Your task to perform on an android device: turn on location history Image 0: 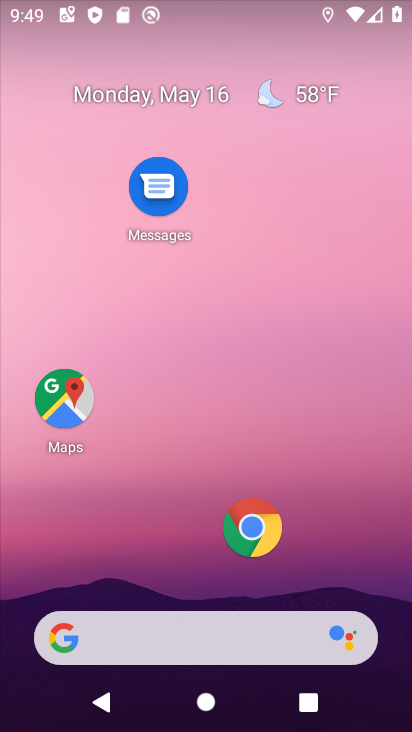
Step 0: drag from (185, 525) to (233, 141)
Your task to perform on an android device: turn on location history Image 1: 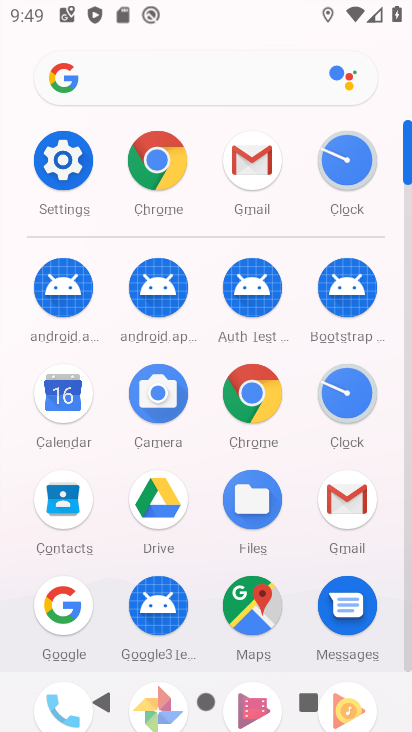
Step 1: click (62, 165)
Your task to perform on an android device: turn on location history Image 2: 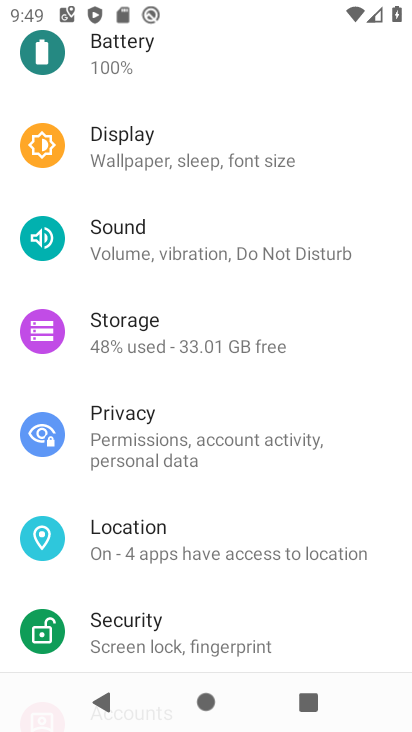
Step 2: click (162, 543)
Your task to perform on an android device: turn on location history Image 3: 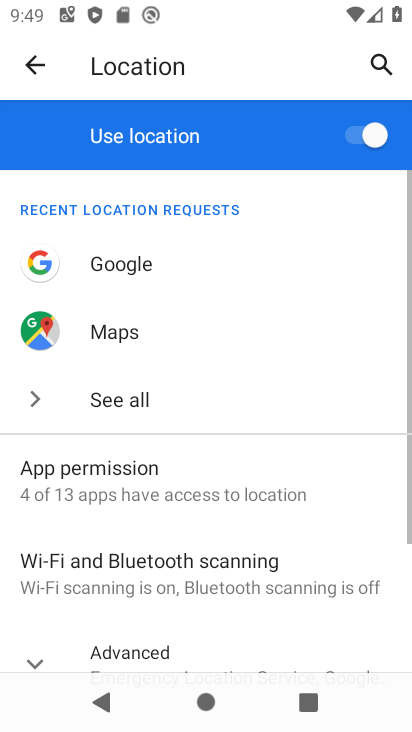
Step 3: drag from (134, 593) to (140, 263)
Your task to perform on an android device: turn on location history Image 4: 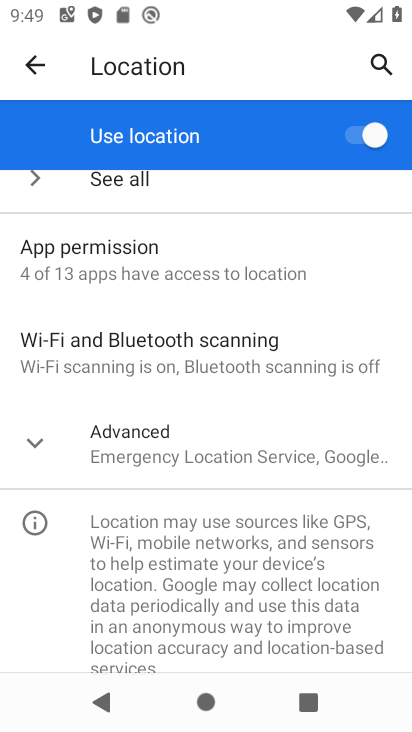
Step 4: click (160, 451)
Your task to perform on an android device: turn on location history Image 5: 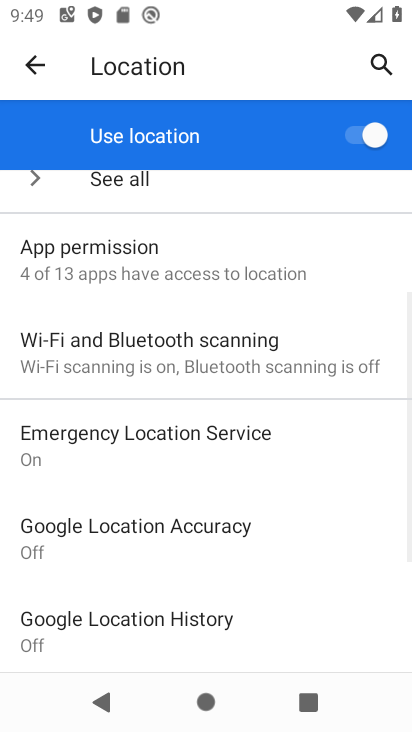
Step 5: click (123, 622)
Your task to perform on an android device: turn on location history Image 6: 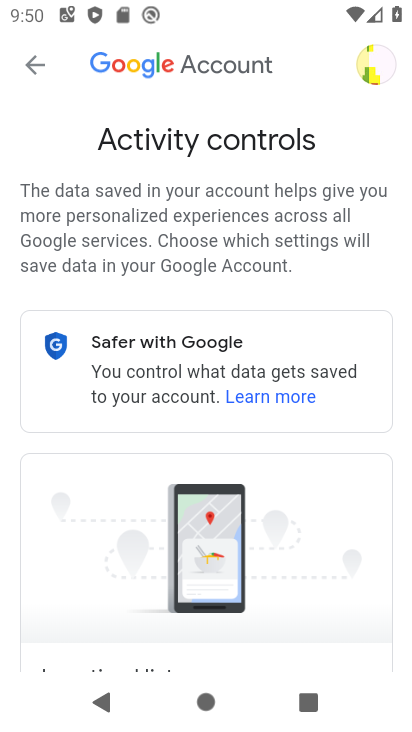
Step 6: task complete